Your task to perform on an android device: See recent photos Image 0: 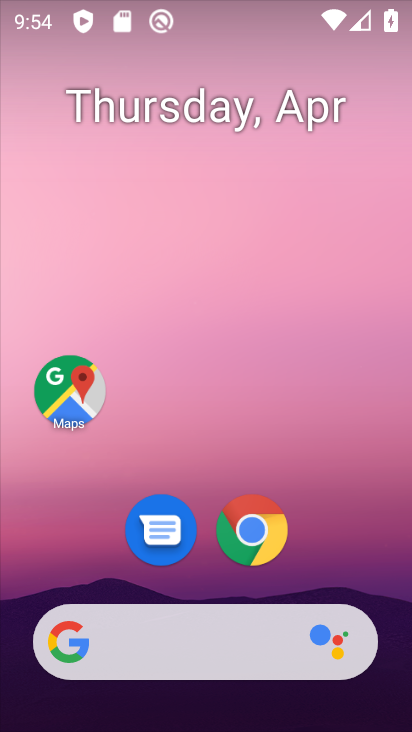
Step 0: click (308, 46)
Your task to perform on an android device: See recent photos Image 1: 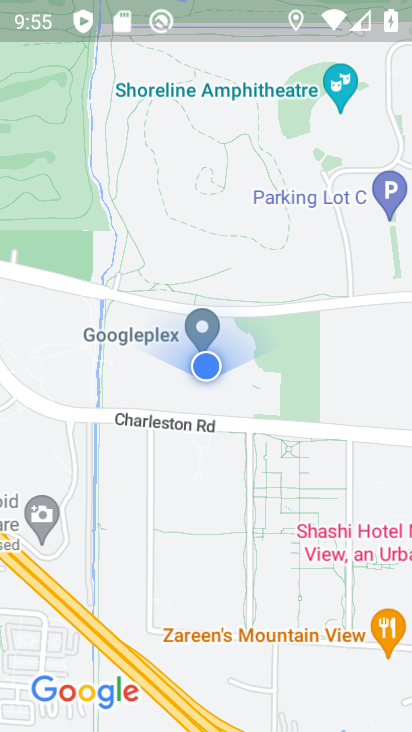
Step 1: press back button
Your task to perform on an android device: See recent photos Image 2: 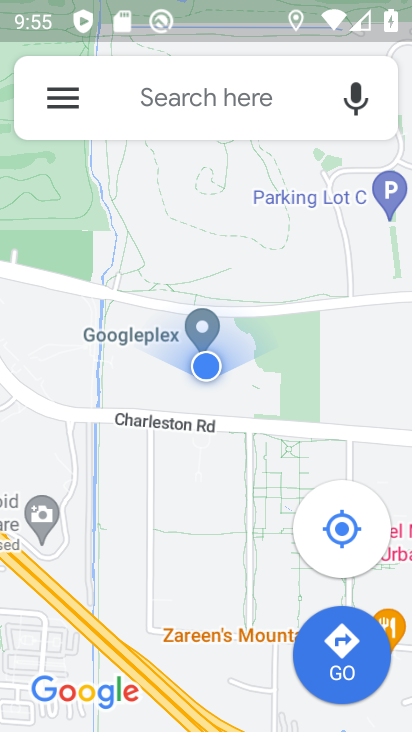
Step 2: press back button
Your task to perform on an android device: See recent photos Image 3: 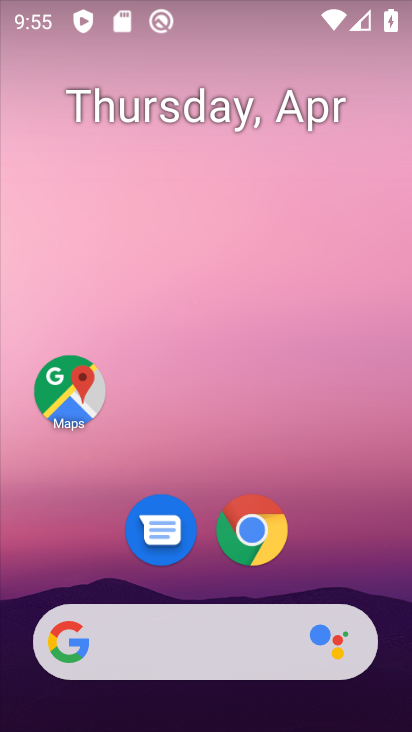
Step 3: drag from (62, 614) to (310, 55)
Your task to perform on an android device: See recent photos Image 4: 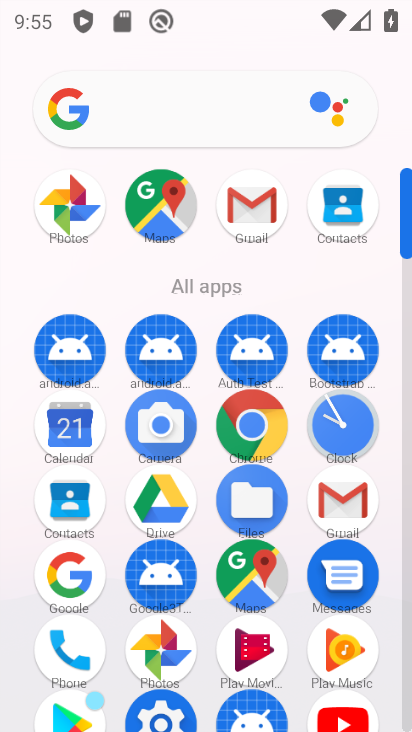
Step 4: click (158, 664)
Your task to perform on an android device: See recent photos Image 5: 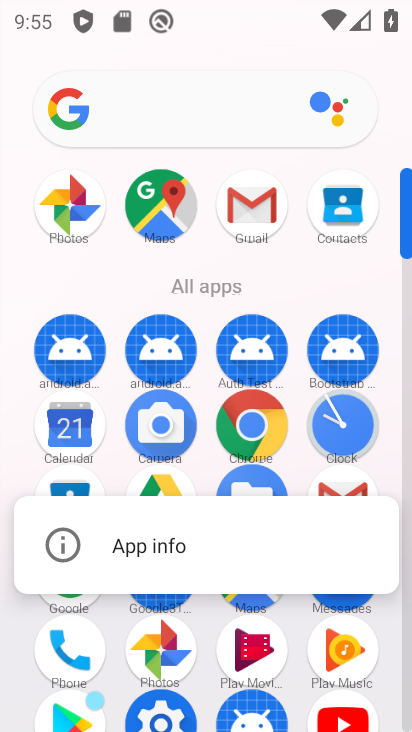
Step 5: click (151, 651)
Your task to perform on an android device: See recent photos Image 6: 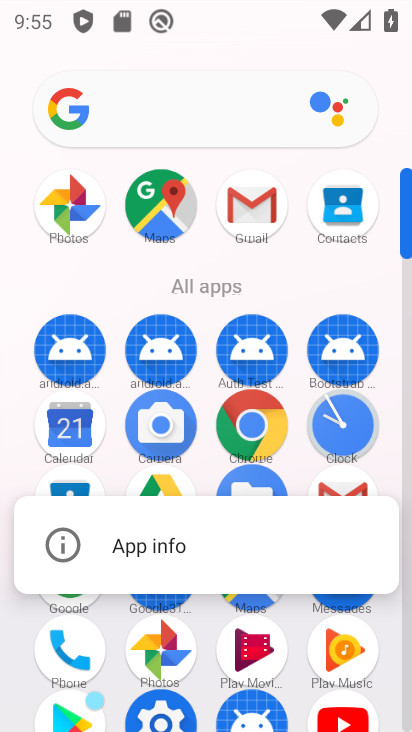
Step 6: click (155, 640)
Your task to perform on an android device: See recent photos Image 7: 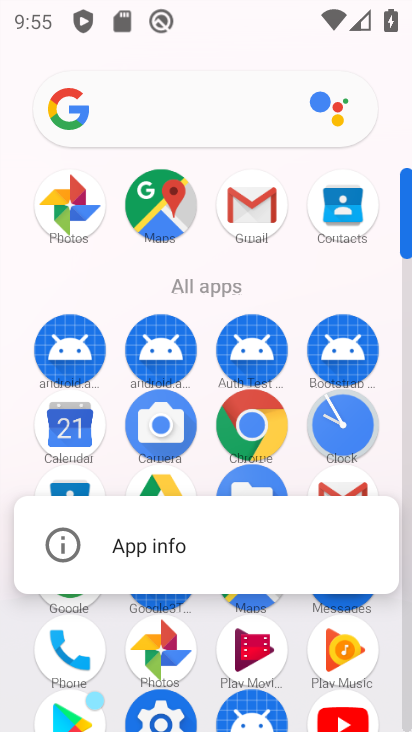
Step 7: click (164, 633)
Your task to perform on an android device: See recent photos Image 8: 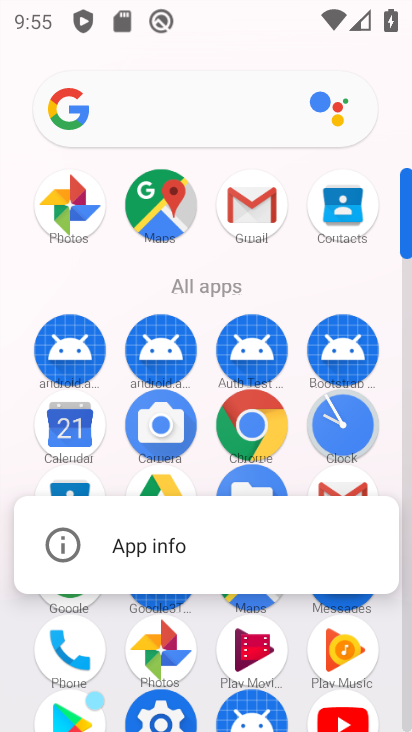
Step 8: click (174, 619)
Your task to perform on an android device: See recent photos Image 9: 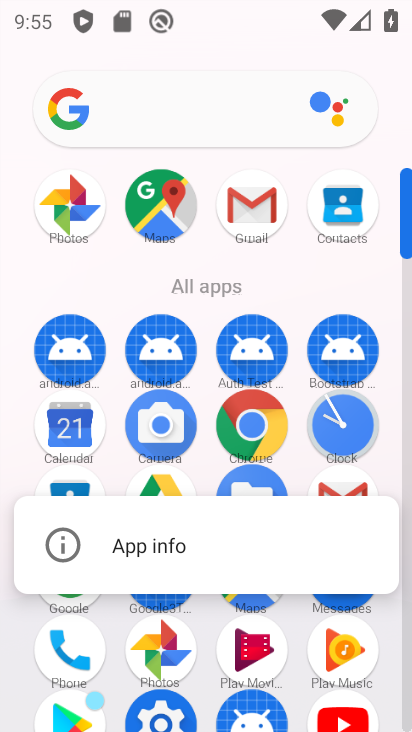
Step 9: click (174, 650)
Your task to perform on an android device: See recent photos Image 10: 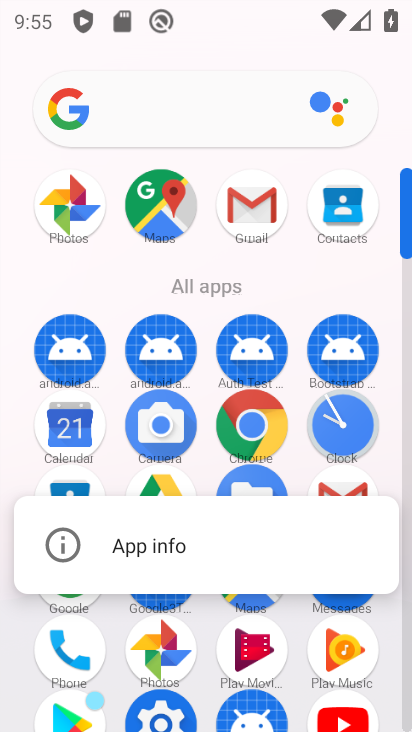
Step 10: click (185, 661)
Your task to perform on an android device: See recent photos Image 11: 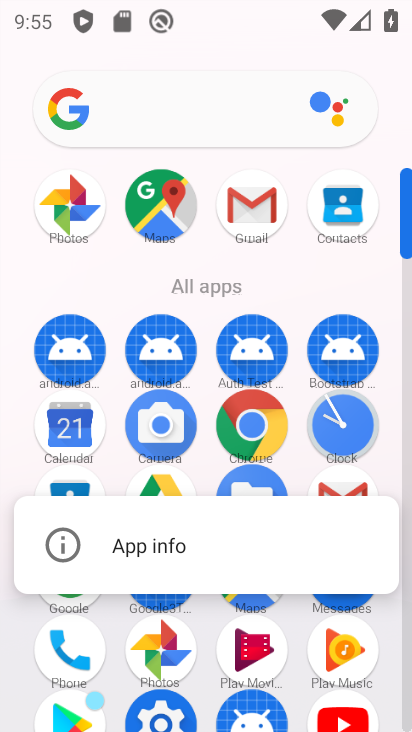
Step 11: click (182, 650)
Your task to perform on an android device: See recent photos Image 12: 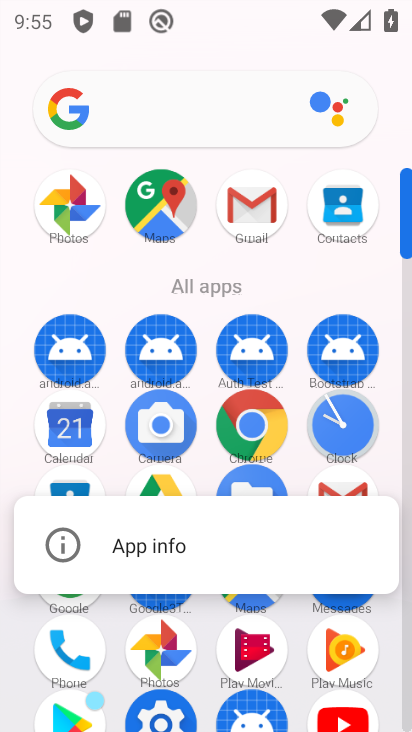
Step 12: click (182, 650)
Your task to perform on an android device: See recent photos Image 13: 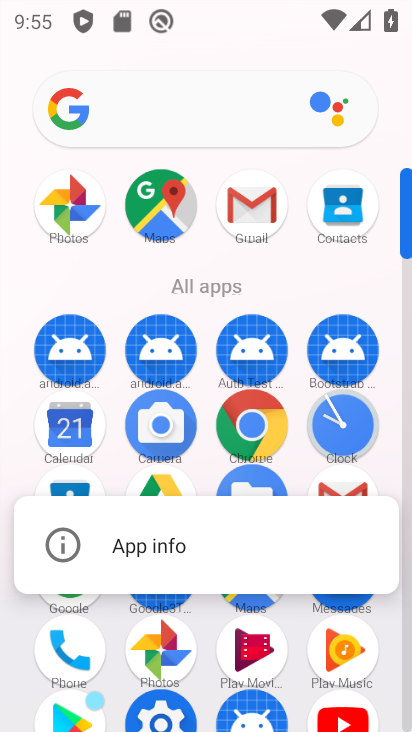
Step 13: click (146, 642)
Your task to perform on an android device: See recent photos Image 14: 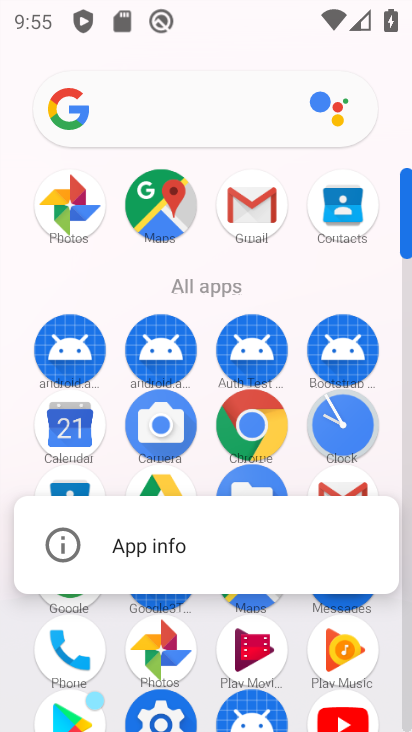
Step 14: click (165, 648)
Your task to perform on an android device: See recent photos Image 15: 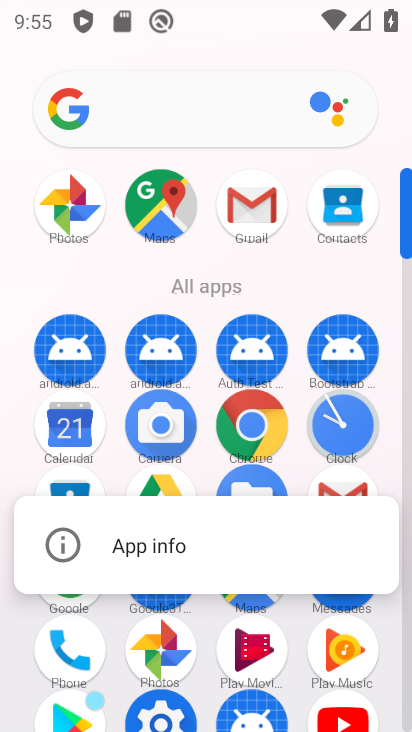
Step 15: click (171, 660)
Your task to perform on an android device: See recent photos Image 16: 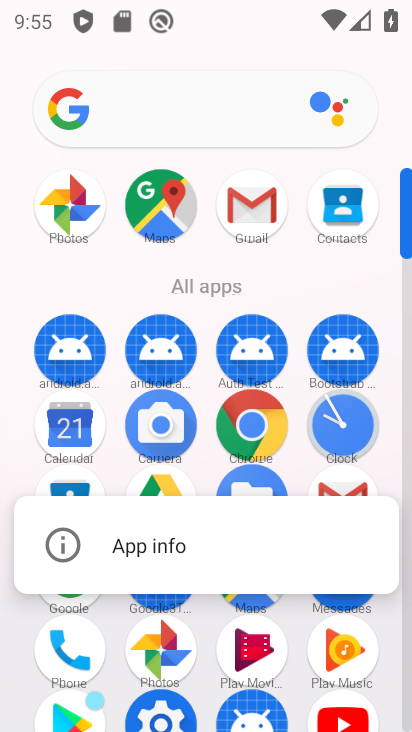
Step 16: click (173, 663)
Your task to perform on an android device: See recent photos Image 17: 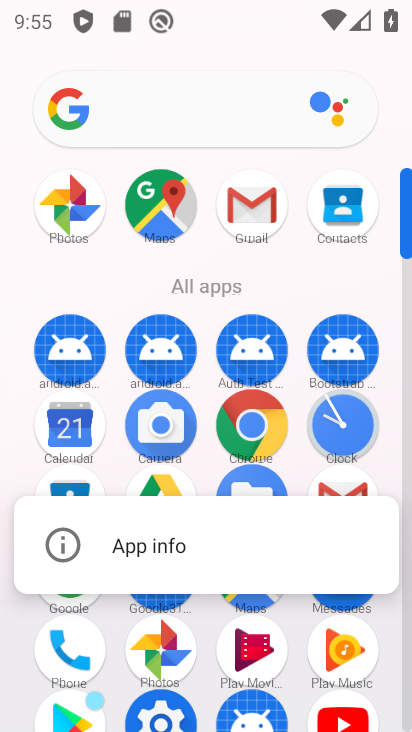
Step 17: click (184, 643)
Your task to perform on an android device: See recent photos Image 18: 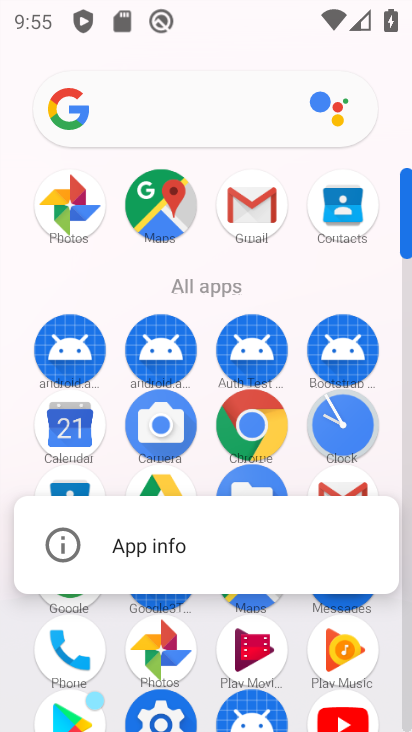
Step 18: click (139, 666)
Your task to perform on an android device: See recent photos Image 19: 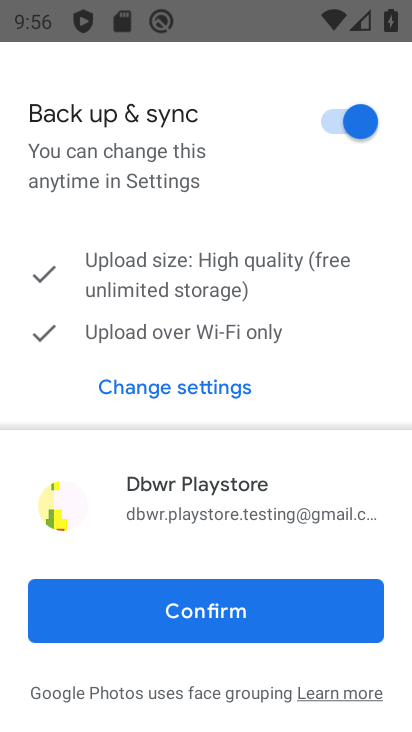
Step 19: click (210, 619)
Your task to perform on an android device: See recent photos Image 20: 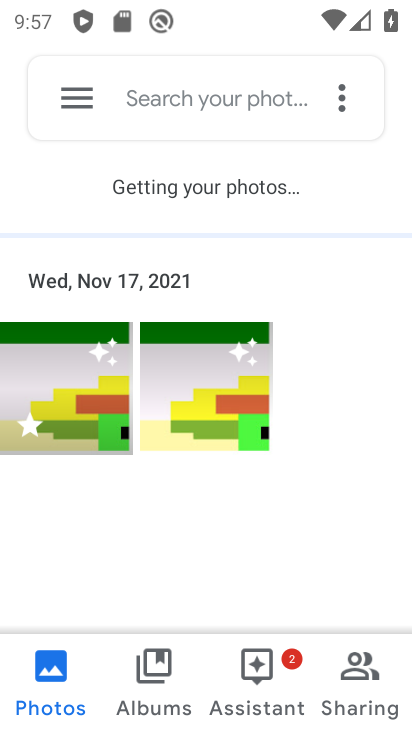
Step 20: task complete